Your task to perform on an android device: Open Reddit.com Image 0: 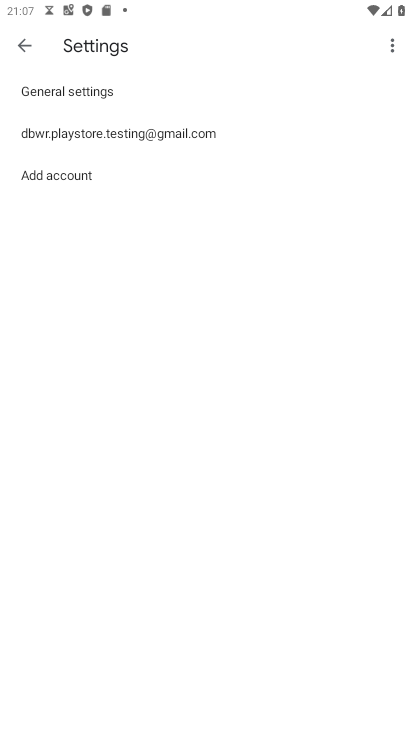
Step 0: press home button
Your task to perform on an android device: Open Reddit.com Image 1: 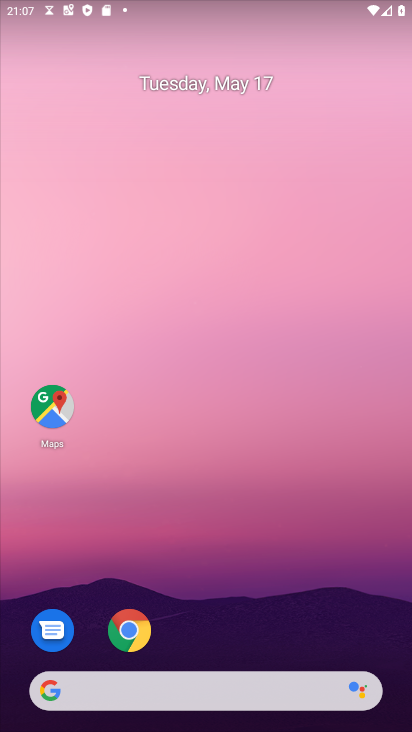
Step 1: click (128, 628)
Your task to perform on an android device: Open Reddit.com Image 2: 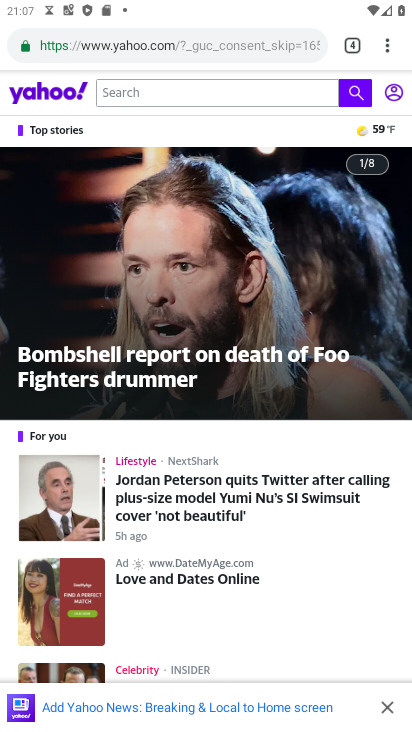
Step 2: click (351, 47)
Your task to perform on an android device: Open Reddit.com Image 3: 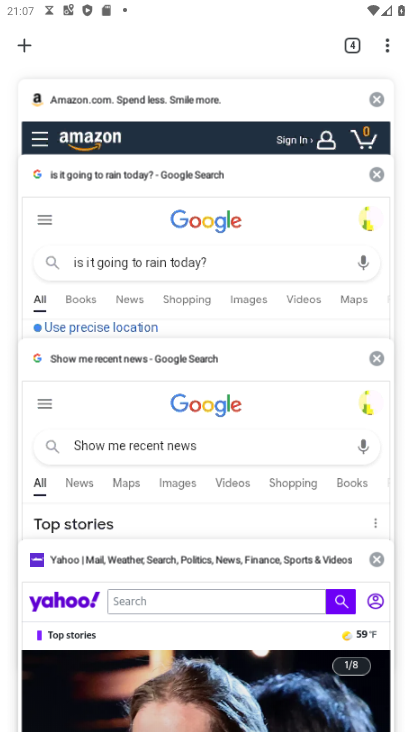
Step 3: click (20, 46)
Your task to perform on an android device: Open Reddit.com Image 4: 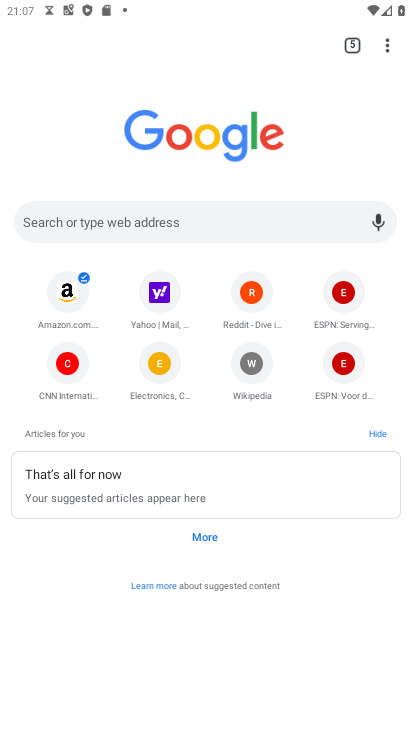
Step 4: click (256, 289)
Your task to perform on an android device: Open Reddit.com Image 5: 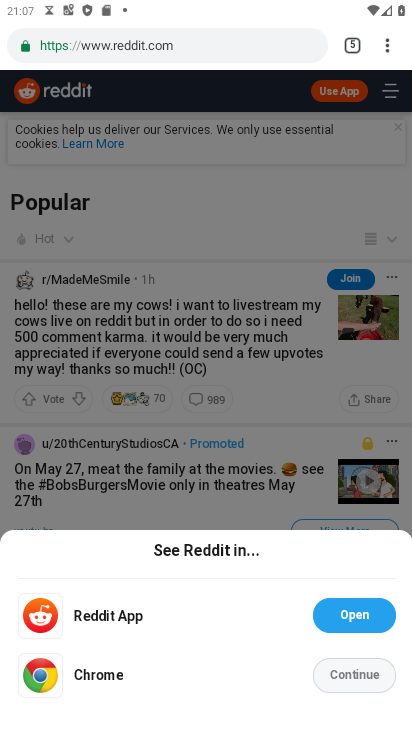
Step 5: click (349, 670)
Your task to perform on an android device: Open Reddit.com Image 6: 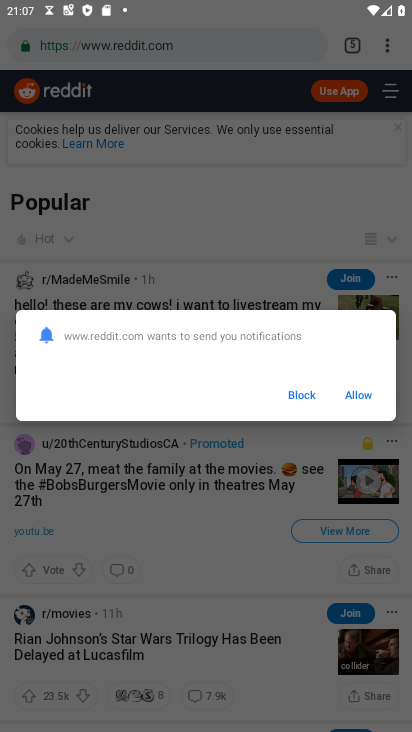
Step 6: click (367, 393)
Your task to perform on an android device: Open Reddit.com Image 7: 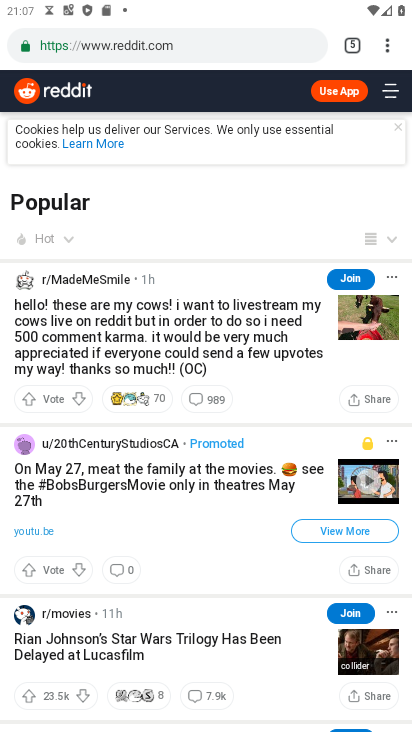
Step 7: task complete